Your task to perform on an android device: Clear all items from cart on target.com. Image 0: 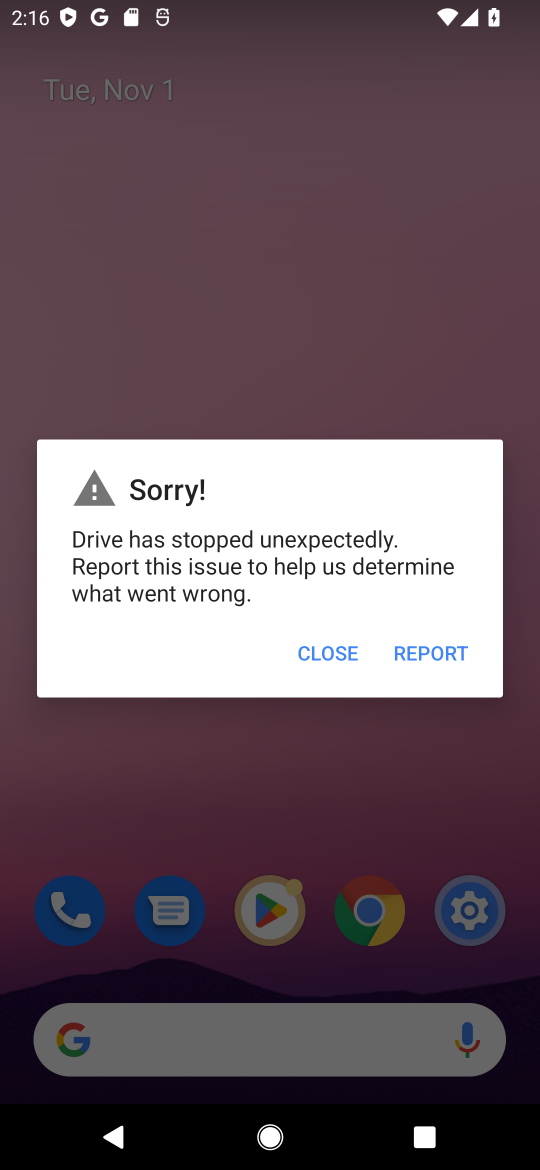
Step 0: press home button
Your task to perform on an android device: Clear all items from cart on target.com. Image 1: 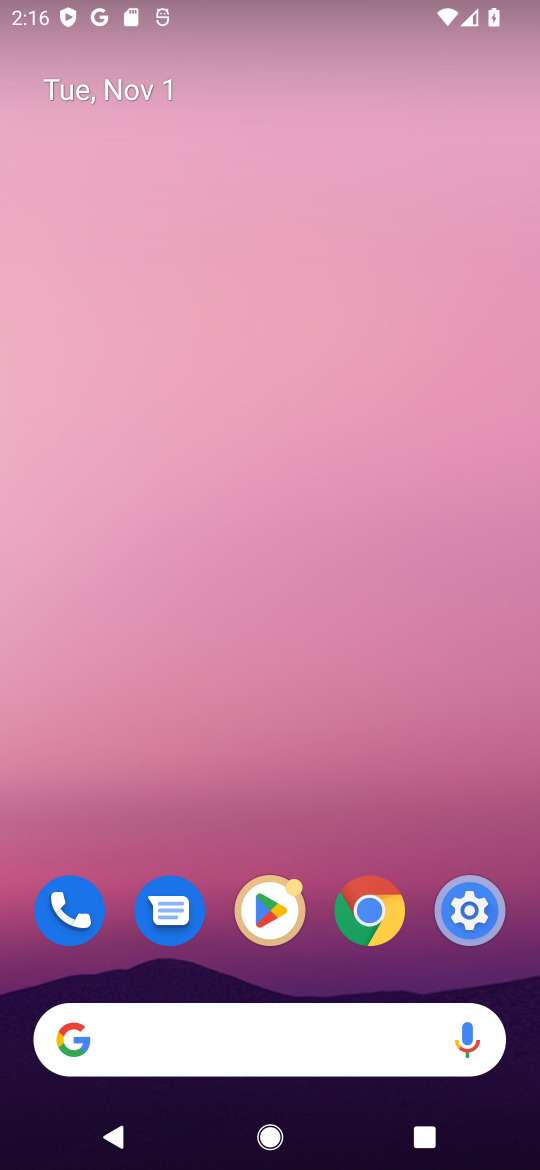
Step 1: drag from (242, 712) to (213, 172)
Your task to perform on an android device: Clear all items from cart on target.com. Image 2: 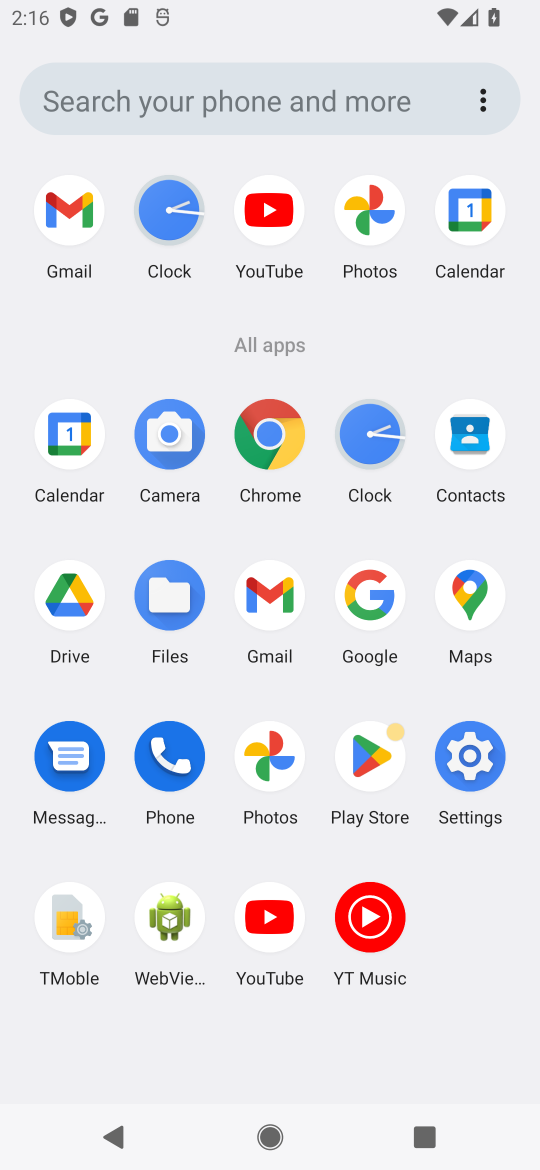
Step 2: click (358, 611)
Your task to perform on an android device: Clear all items from cart on target.com. Image 3: 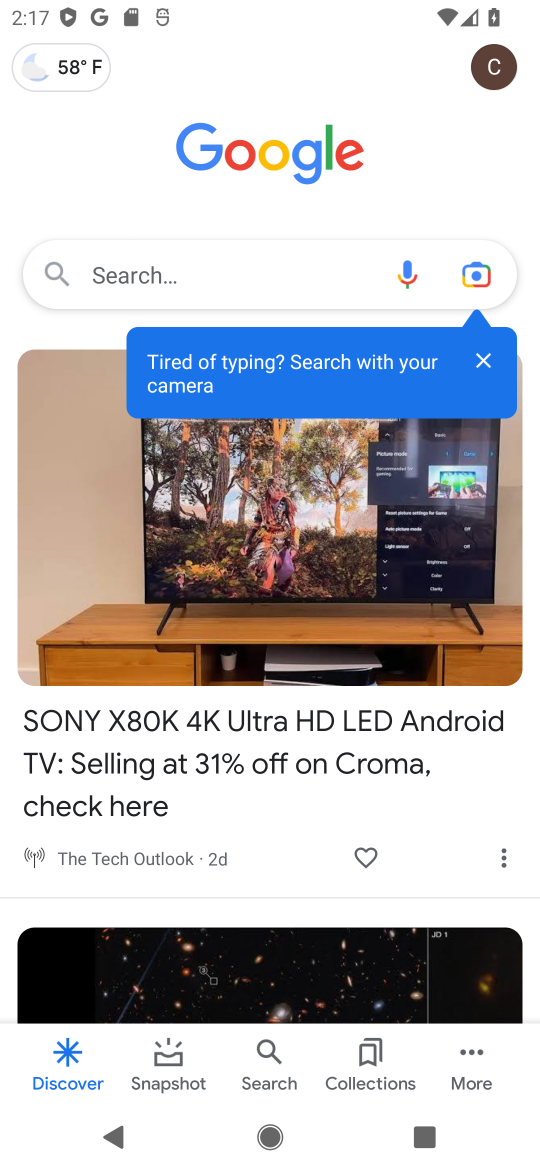
Step 3: click (171, 265)
Your task to perform on an android device: Clear all items from cart on target.com. Image 4: 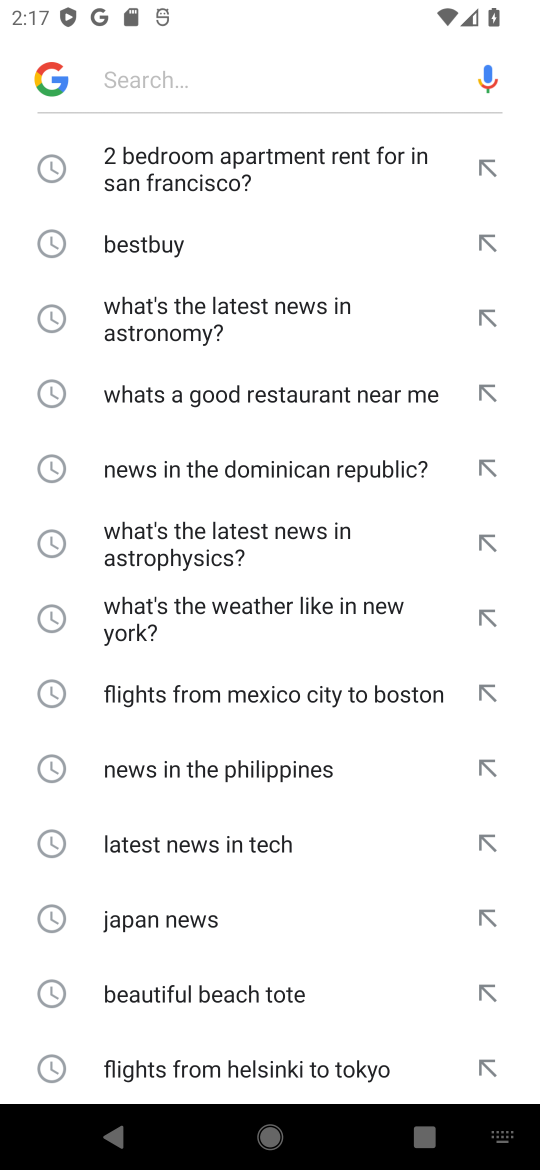
Step 4: type "target.com"
Your task to perform on an android device: Clear all items from cart on target.com. Image 5: 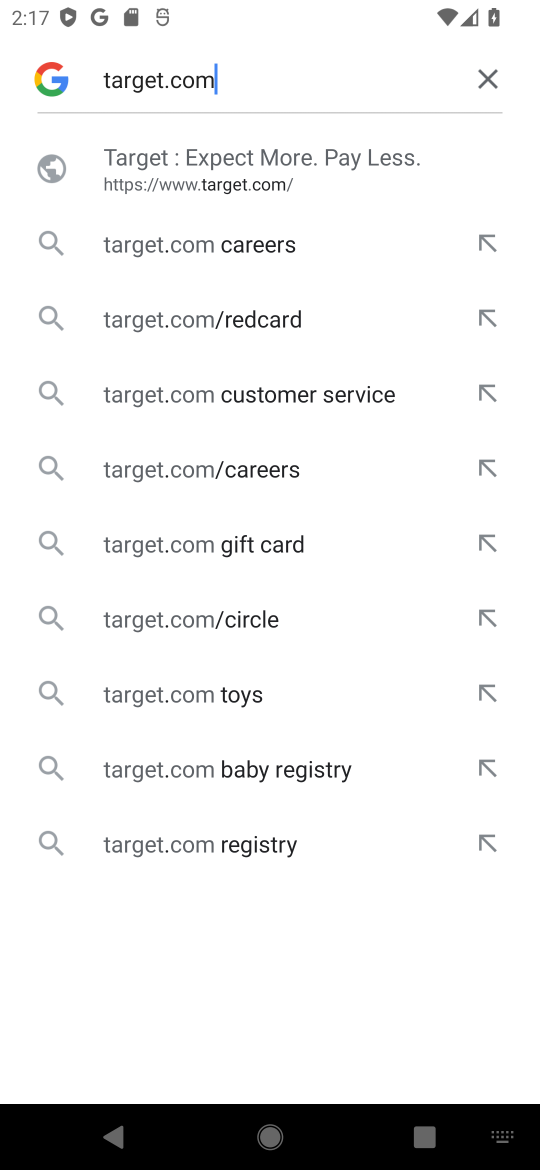
Step 5: click (249, 184)
Your task to perform on an android device: Clear all items from cart on target.com. Image 6: 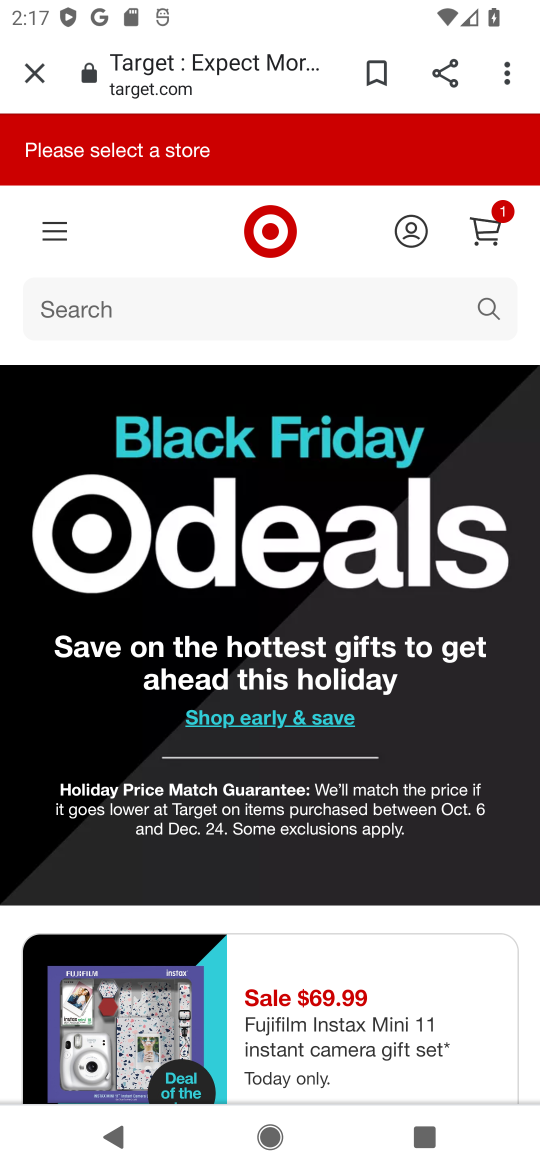
Step 6: click (488, 223)
Your task to perform on an android device: Clear all items from cart on target.com. Image 7: 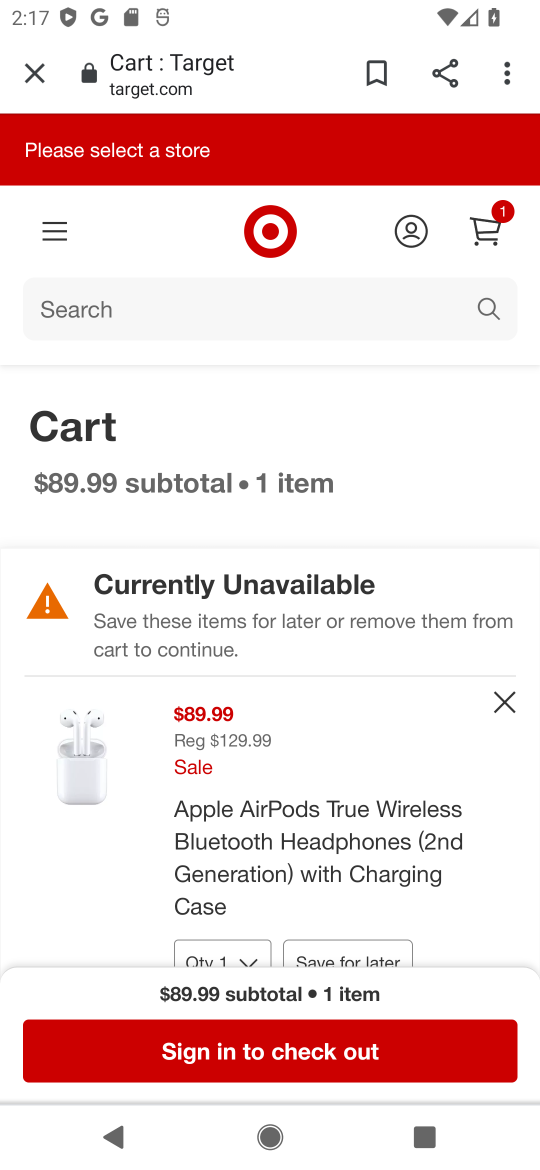
Step 7: click (505, 698)
Your task to perform on an android device: Clear all items from cart on target.com. Image 8: 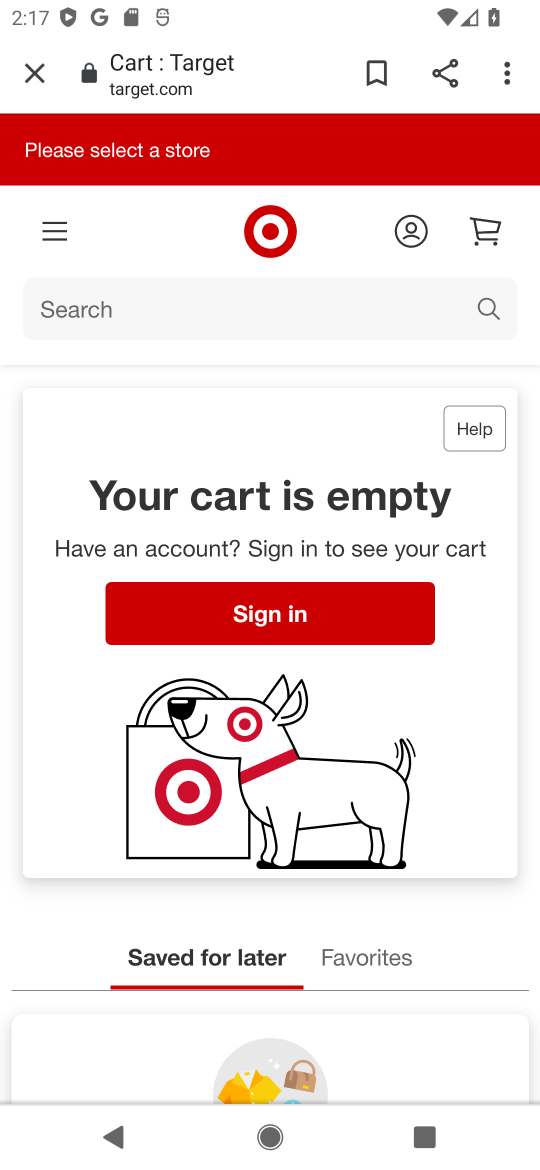
Step 8: task complete